Your task to perform on an android device: Go to battery settings Image 0: 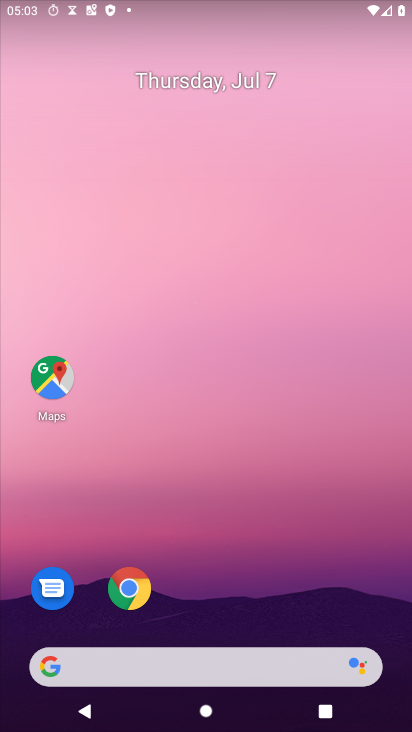
Step 0: press home button
Your task to perform on an android device: Go to battery settings Image 1: 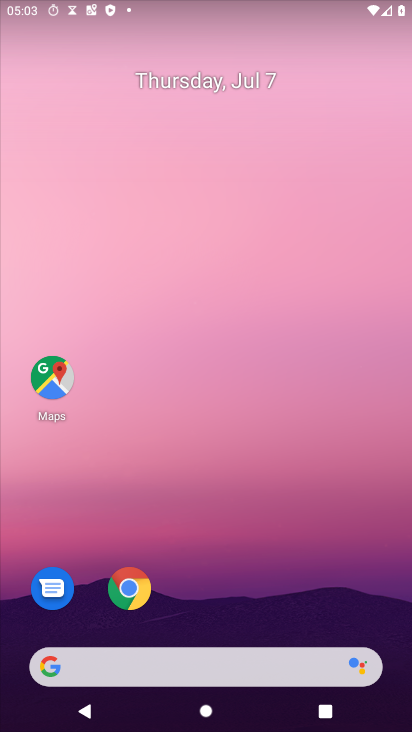
Step 1: drag from (257, 495) to (178, 150)
Your task to perform on an android device: Go to battery settings Image 2: 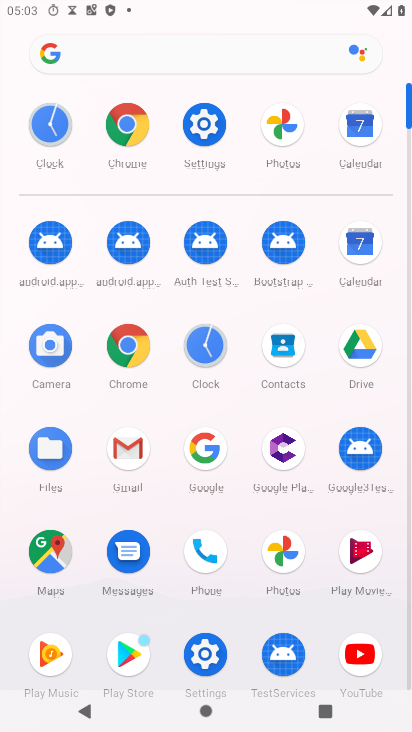
Step 2: click (200, 125)
Your task to perform on an android device: Go to battery settings Image 3: 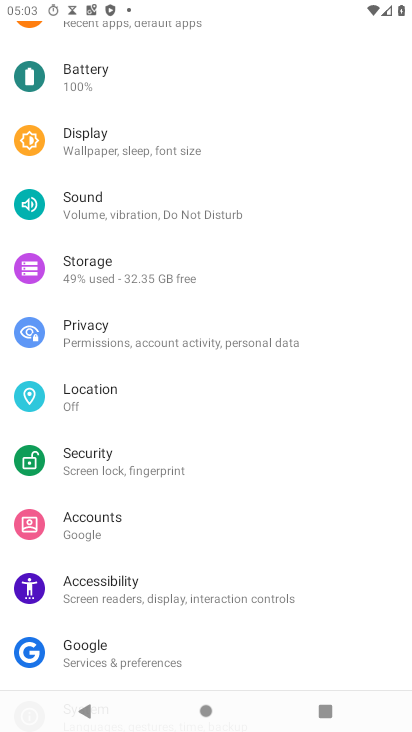
Step 3: click (78, 79)
Your task to perform on an android device: Go to battery settings Image 4: 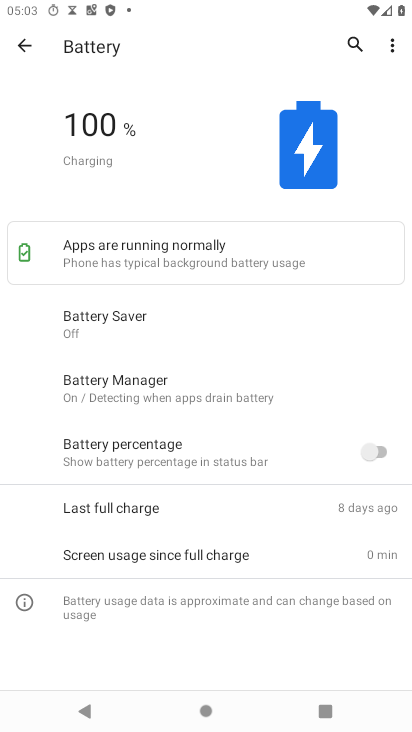
Step 4: task complete